Your task to perform on an android device: find snoozed emails in the gmail app Image 0: 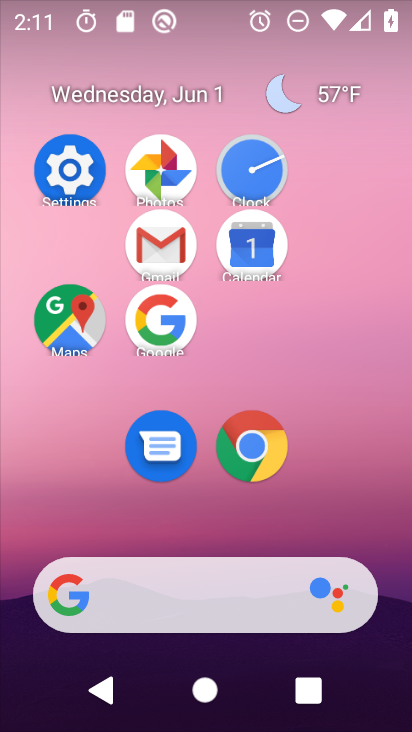
Step 0: click (179, 226)
Your task to perform on an android device: find snoozed emails in the gmail app Image 1: 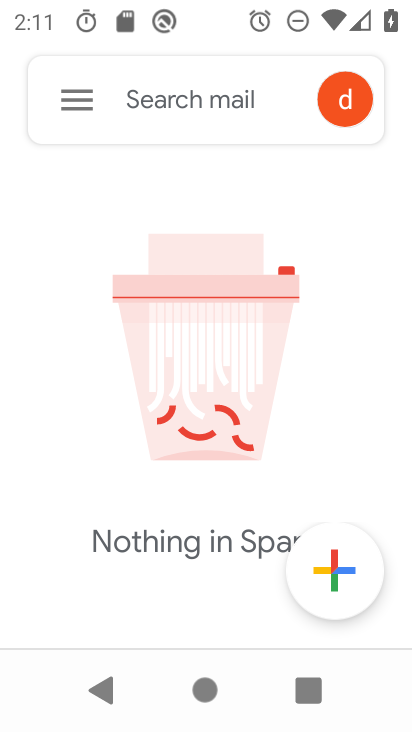
Step 1: click (65, 87)
Your task to perform on an android device: find snoozed emails in the gmail app Image 2: 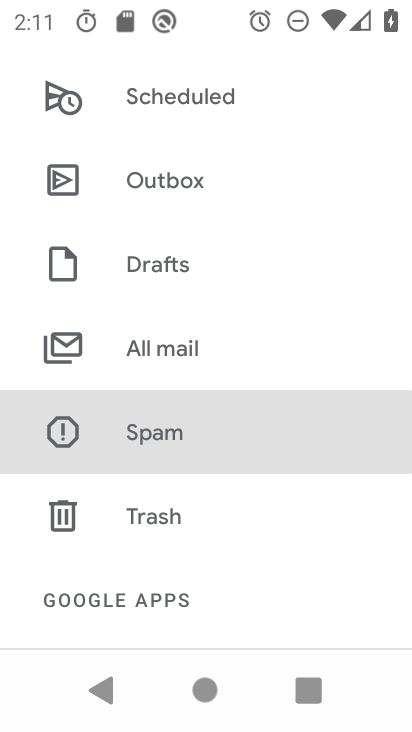
Step 2: drag from (237, 171) to (296, 631)
Your task to perform on an android device: find snoozed emails in the gmail app Image 3: 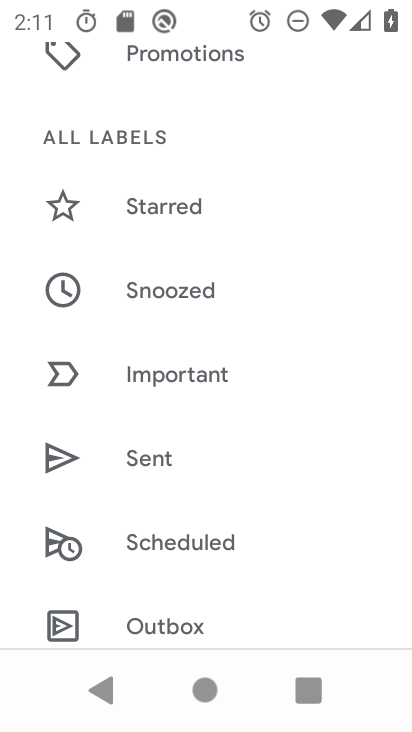
Step 3: click (200, 287)
Your task to perform on an android device: find snoozed emails in the gmail app Image 4: 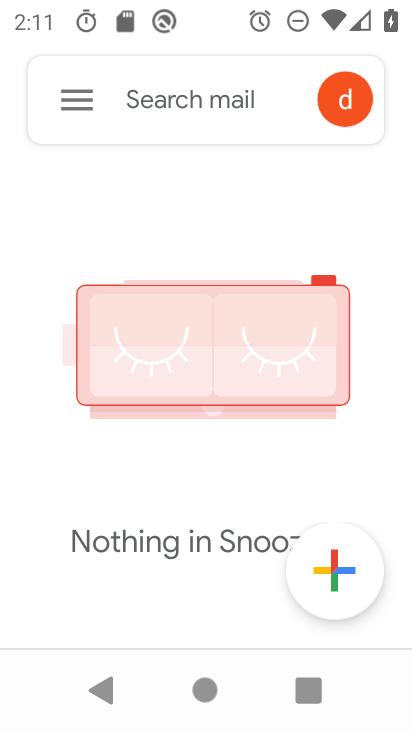
Step 4: task complete